Your task to perform on an android device: What's on my calendar today? Image 0: 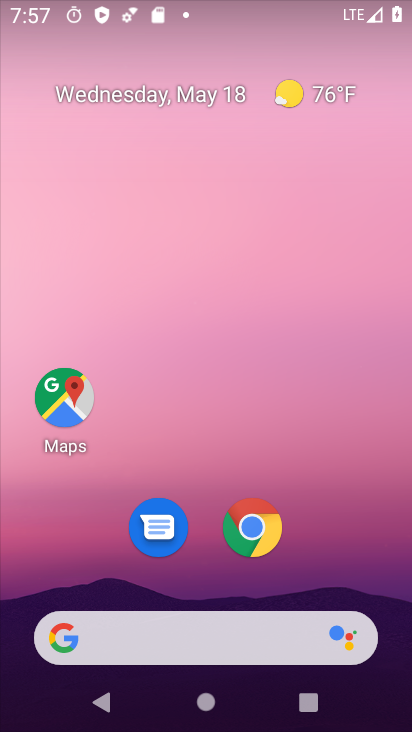
Step 0: click (391, 170)
Your task to perform on an android device: What's on my calendar today? Image 1: 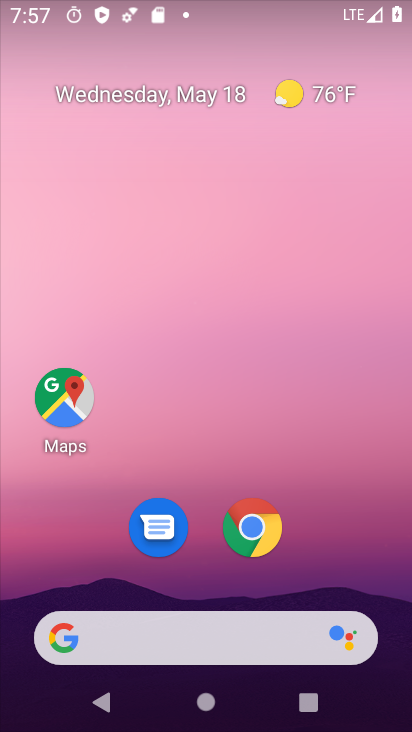
Step 1: drag from (394, 676) to (376, 246)
Your task to perform on an android device: What's on my calendar today? Image 2: 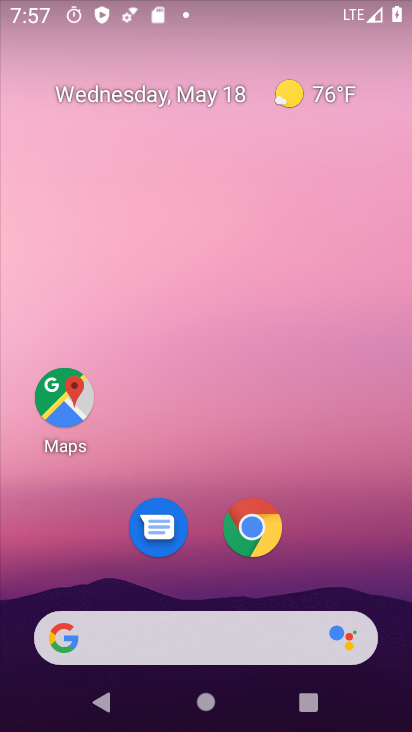
Step 2: drag from (391, 710) to (388, 87)
Your task to perform on an android device: What's on my calendar today? Image 3: 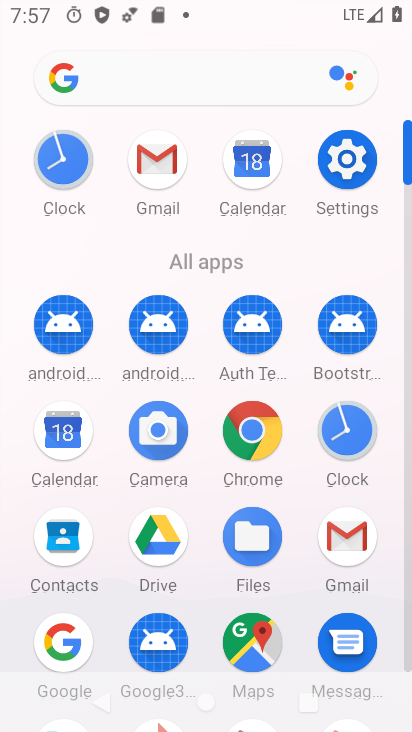
Step 3: click (59, 444)
Your task to perform on an android device: What's on my calendar today? Image 4: 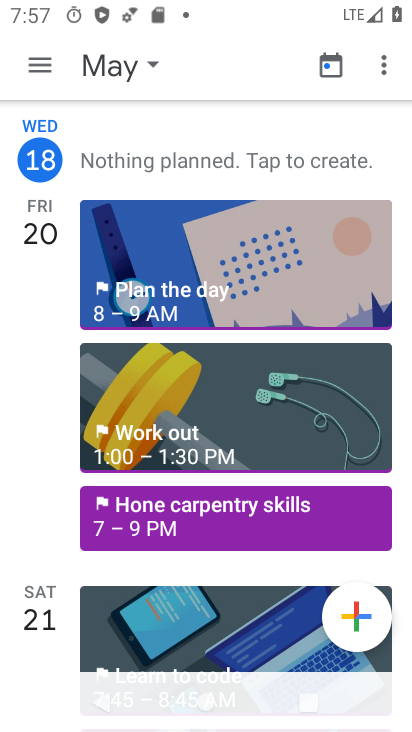
Step 4: click (155, 62)
Your task to perform on an android device: What's on my calendar today? Image 5: 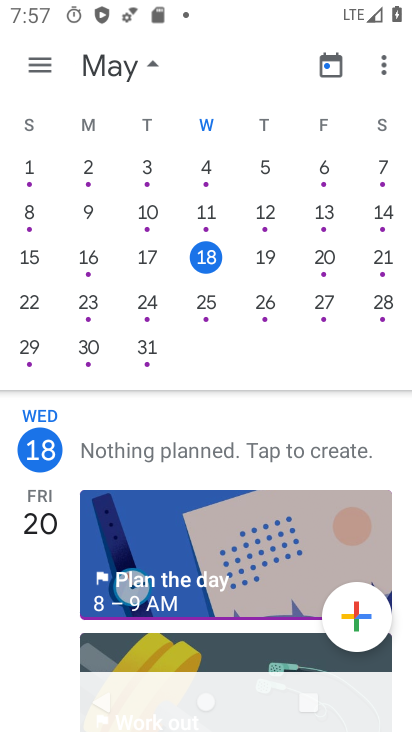
Step 5: click (195, 254)
Your task to perform on an android device: What's on my calendar today? Image 6: 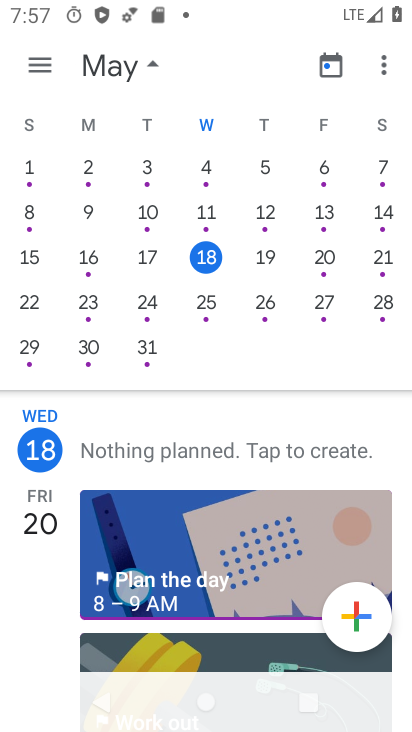
Step 6: click (213, 257)
Your task to perform on an android device: What's on my calendar today? Image 7: 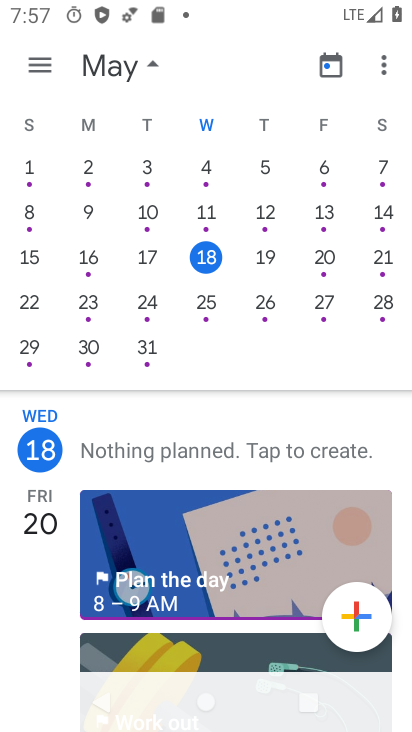
Step 7: click (213, 257)
Your task to perform on an android device: What's on my calendar today? Image 8: 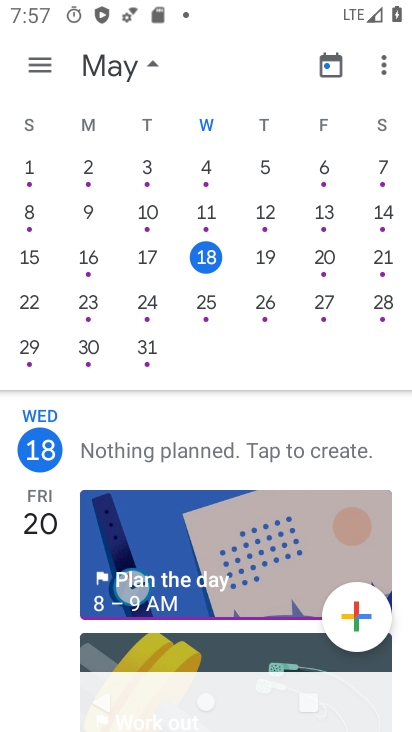
Step 8: task complete